Your task to perform on an android device: change text size in settings app Image 0: 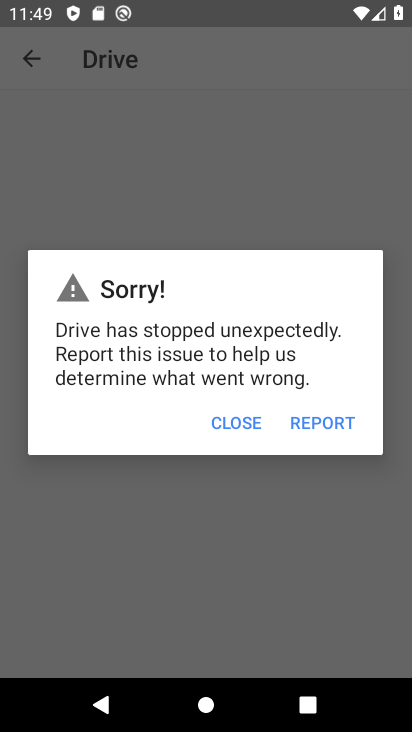
Step 0: press home button
Your task to perform on an android device: change text size in settings app Image 1: 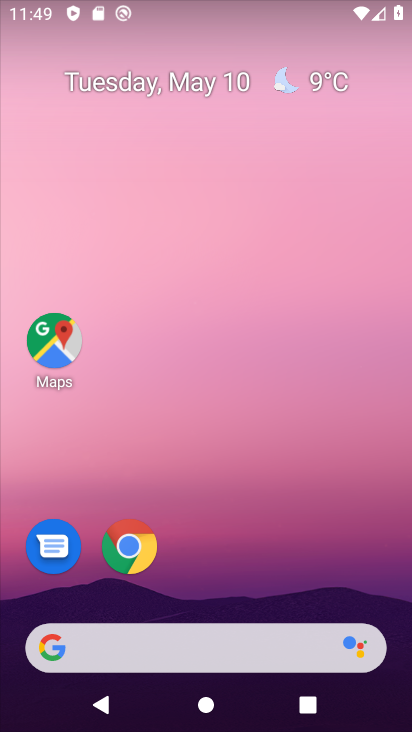
Step 1: drag from (197, 584) to (237, 92)
Your task to perform on an android device: change text size in settings app Image 2: 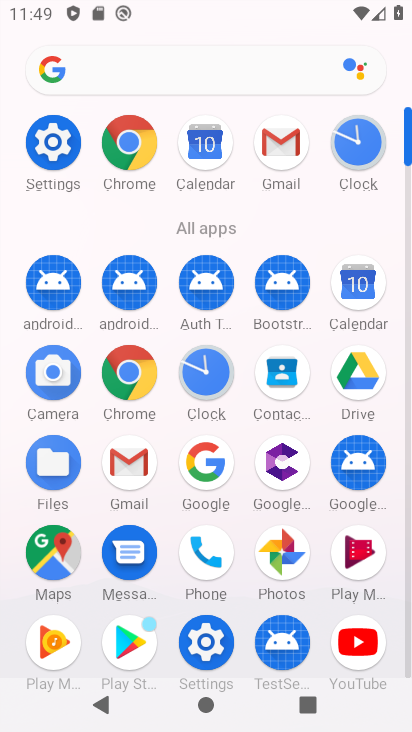
Step 2: click (54, 149)
Your task to perform on an android device: change text size in settings app Image 3: 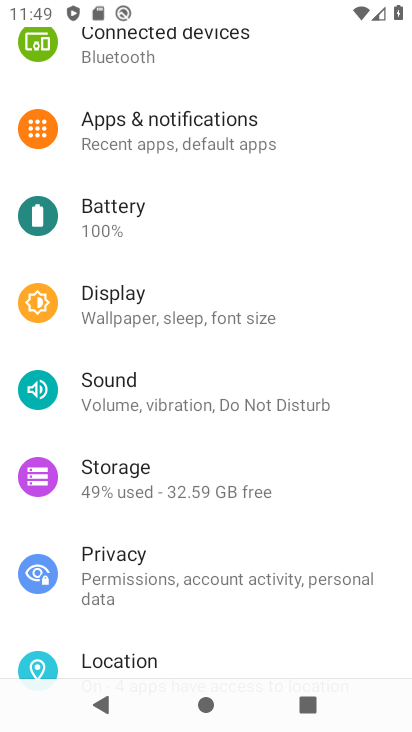
Step 3: click (164, 292)
Your task to perform on an android device: change text size in settings app Image 4: 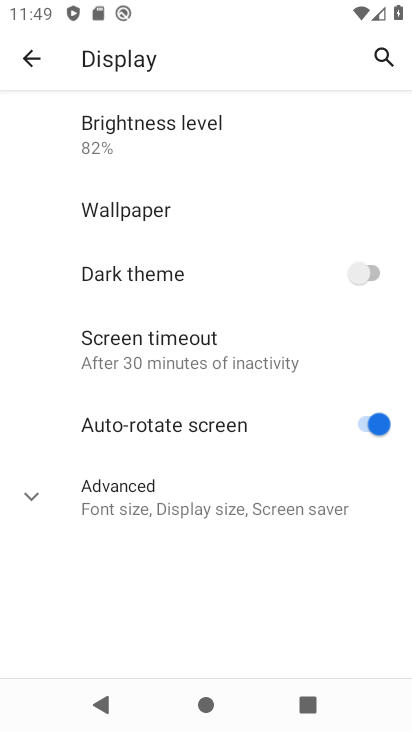
Step 4: click (130, 502)
Your task to perform on an android device: change text size in settings app Image 5: 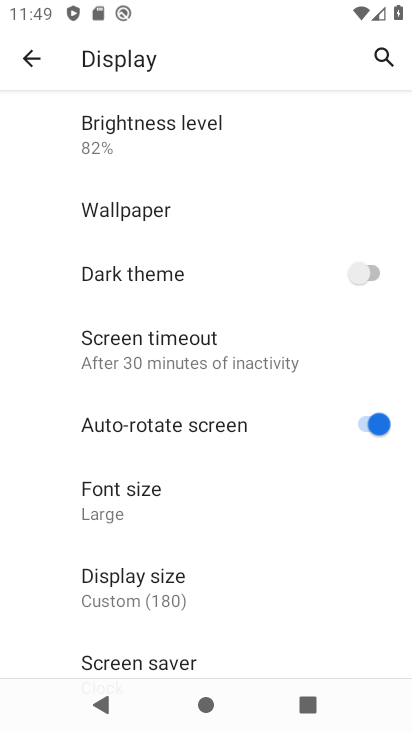
Step 5: click (136, 515)
Your task to perform on an android device: change text size in settings app Image 6: 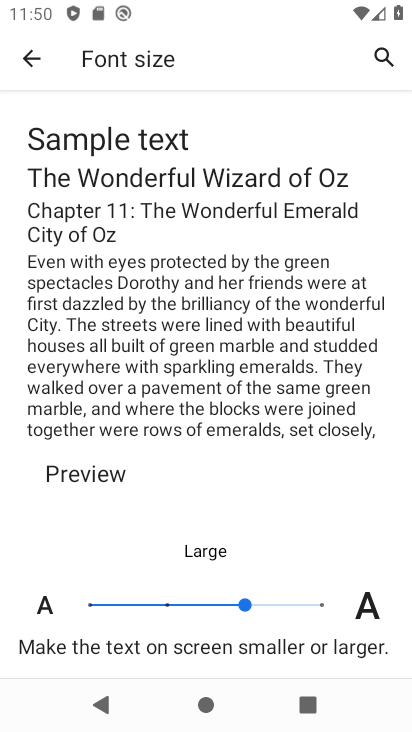
Step 6: click (165, 605)
Your task to perform on an android device: change text size in settings app Image 7: 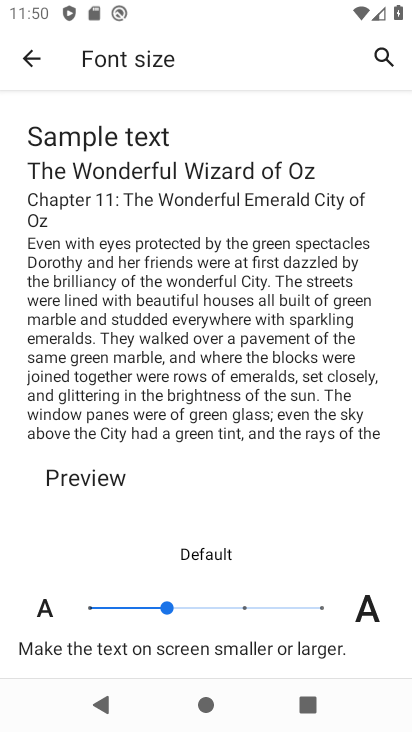
Step 7: task complete